Your task to perform on an android device: turn pop-ups on in chrome Image 0: 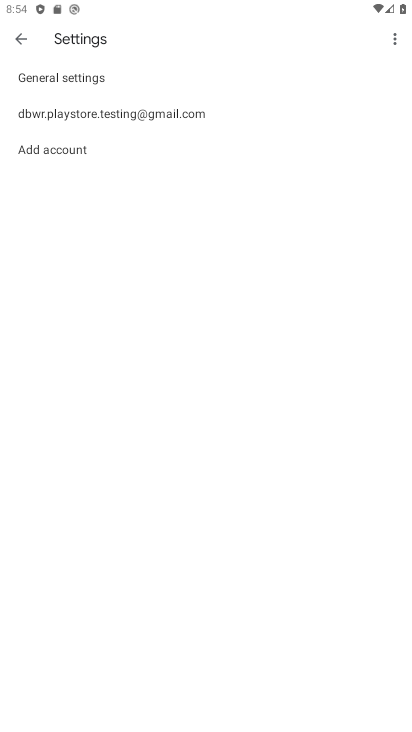
Step 0: press home button
Your task to perform on an android device: turn pop-ups on in chrome Image 1: 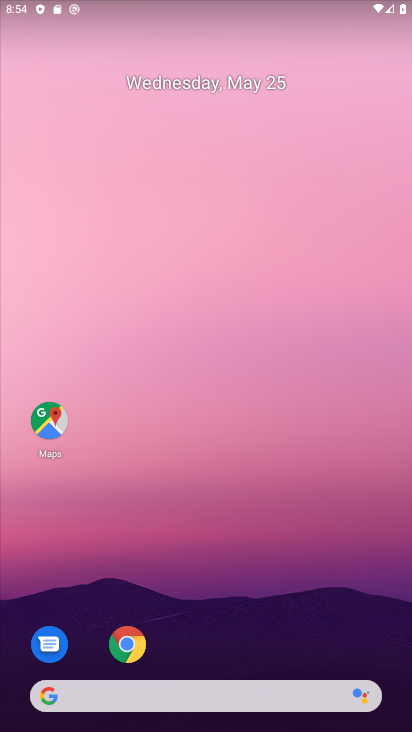
Step 1: click (134, 641)
Your task to perform on an android device: turn pop-ups on in chrome Image 2: 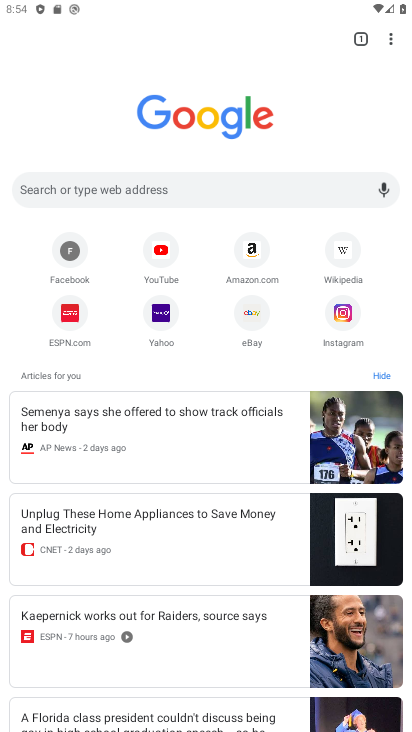
Step 2: click (389, 41)
Your task to perform on an android device: turn pop-ups on in chrome Image 3: 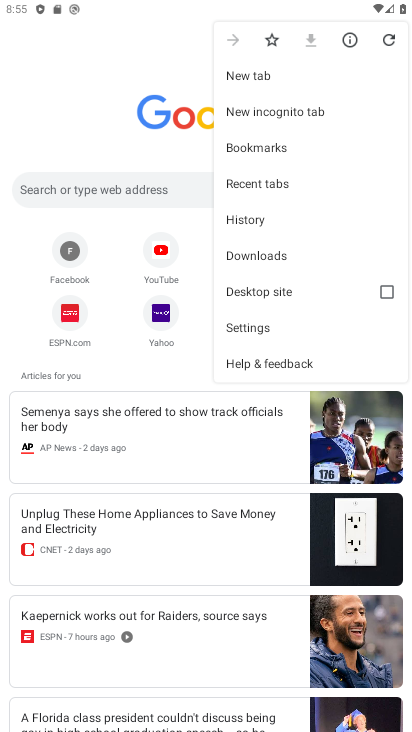
Step 3: click (247, 331)
Your task to perform on an android device: turn pop-ups on in chrome Image 4: 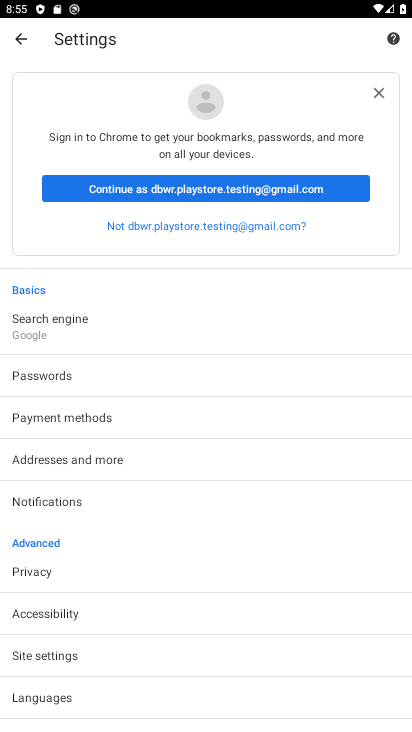
Step 4: click (74, 658)
Your task to perform on an android device: turn pop-ups on in chrome Image 5: 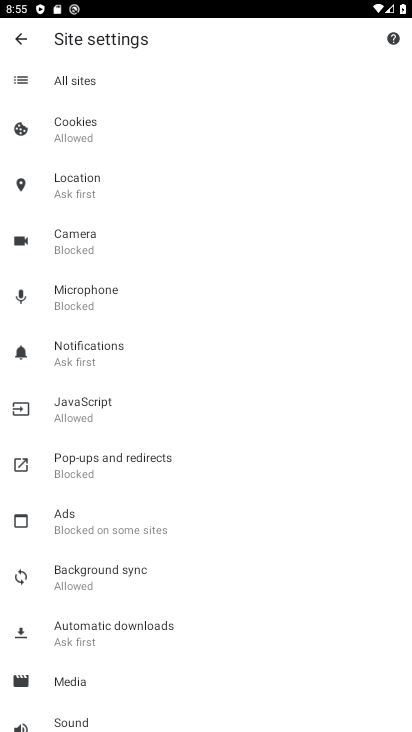
Step 5: click (85, 450)
Your task to perform on an android device: turn pop-ups on in chrome Image 6: 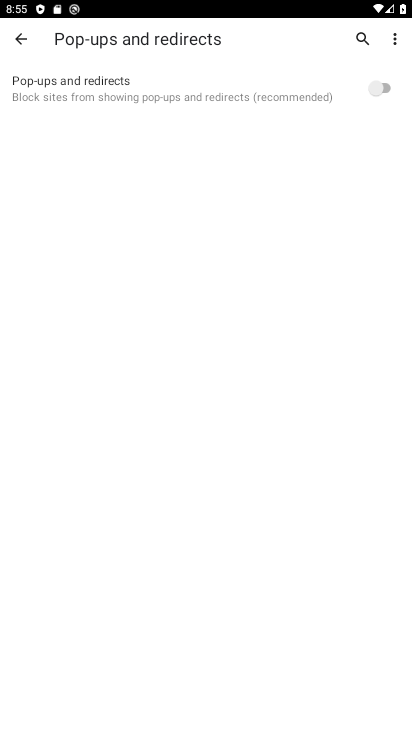
Step 6: click (377, 78)
Your task to perform on an android device: turn pop-ups on in chrome Image 7: 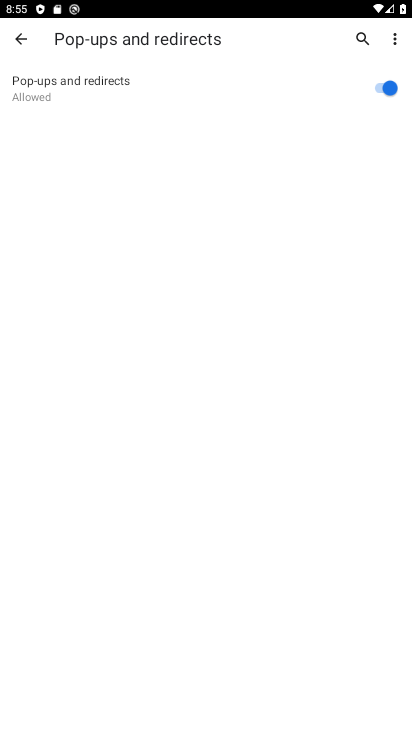
Step 7: task complete